Your task to perform on an android device: Open the calendar app, open the side menu, and click the "Day" option Image 0: 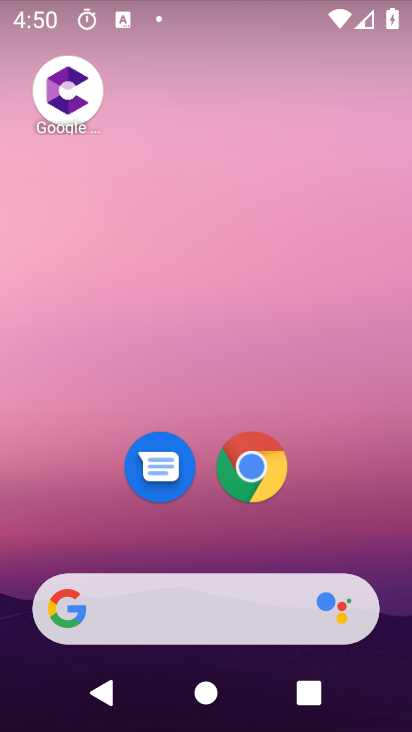
Step 0: drag from (275, 541) to (325, 5)
Your task to perform on an android device: Open the calendar app, open the side menu, and click the "Day" option Image 1: 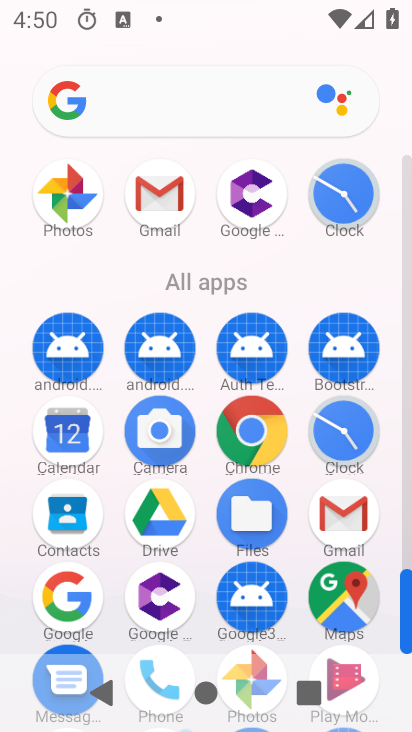
Step 1: click (66, 440)
Your task to perform on an android device: Open the calendar app, open the side menu, and click the "Day" option Image 2: 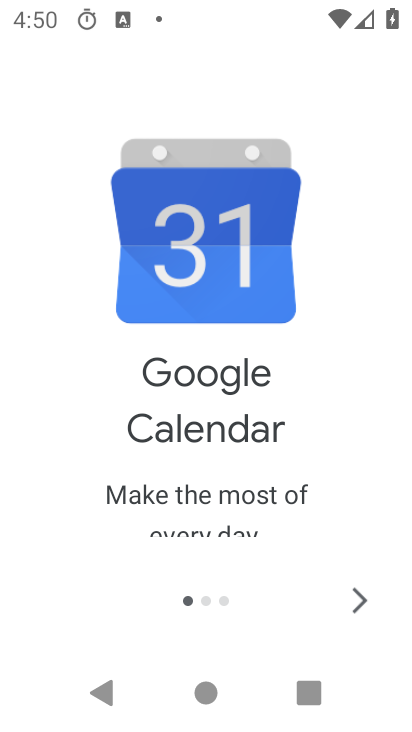
Step 2: click (359, 597)
Your task to perform on an android device: Open the calendar app, open the side menu, and click the "Day" option Image 3: 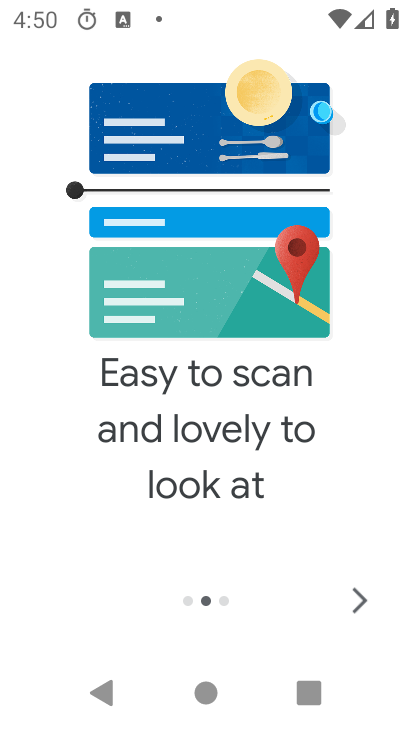
Step 3: click (359, 597)
Your task to perform on an android device: Open the calendar app, open the side menu, and click the "Day" option Image 4: 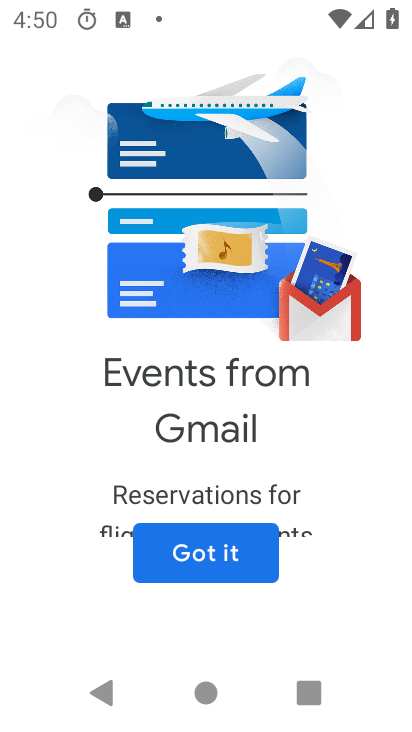
Step 4: click (230, 572)
Your task to perform on an android device: Open the calendar app, open the side menu, and click the "Day" option Image 5: 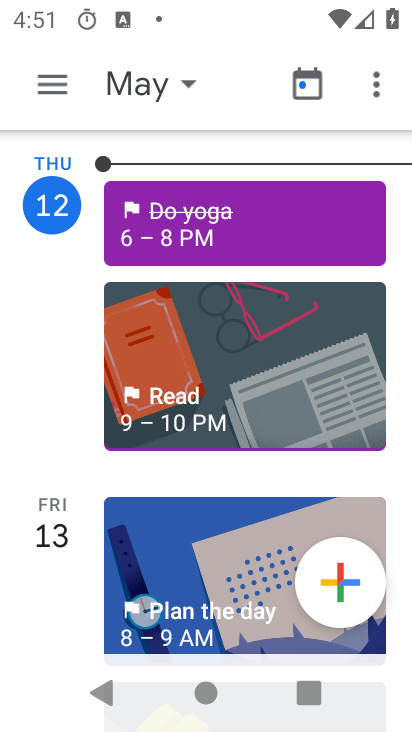
Step 5: click (63, 84)
Your task to perform on an android device: Open the calendar app, open the side menu, and click the "Day" option Image 6: 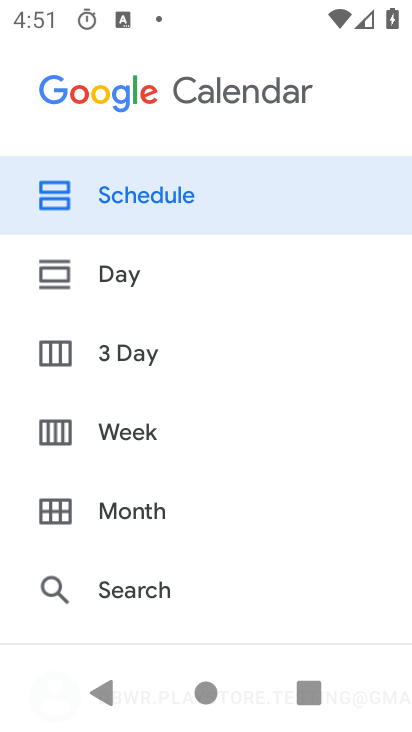
Step 6: click (139, 286)
Your task to perform on an android device: Open the calendar app, open the side menu, and click the "Day" option Image 7: 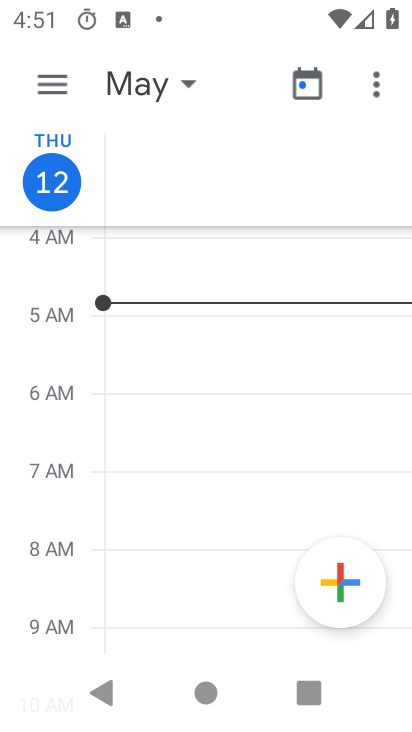
Step 7: click (58, 75)
Your task to perform on an android device: Open the calendar app, open the side menu, and click the "Day" option Image 8: 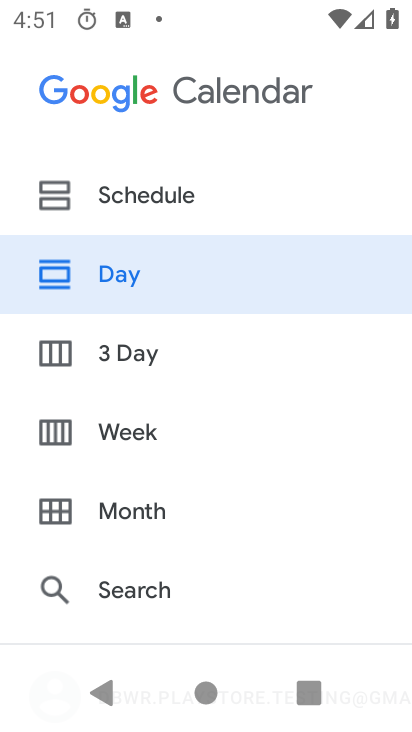
Step 8: click (178, 287)
Your task to perform on an android device: Open the calendar app, open the side menu, and click the "Day" option Image 9: 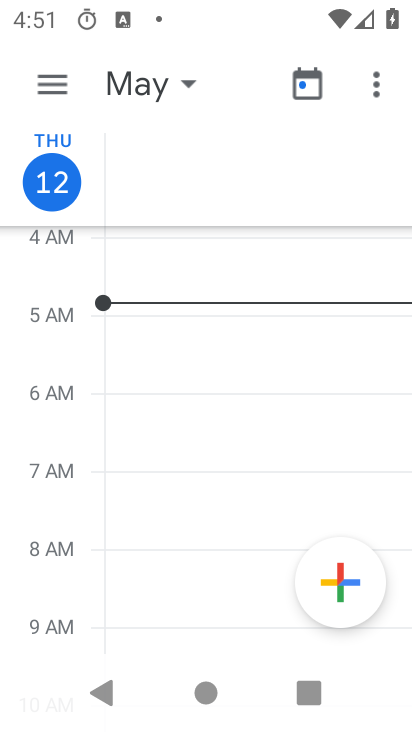
Step 9: task complete